Your task to perform on an android device: add a label to a message in the gmail app Image 0: 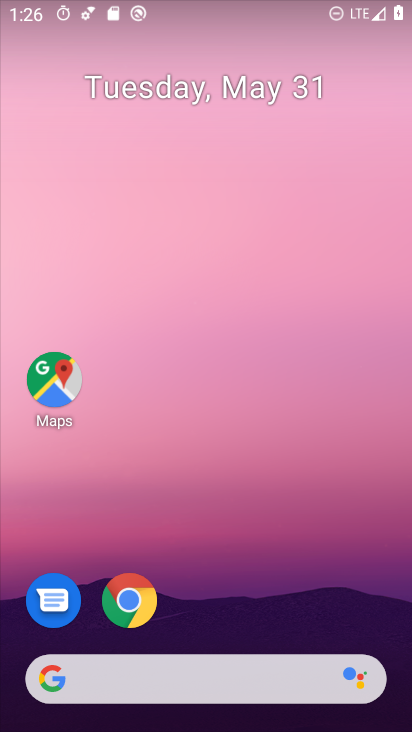
Step 0: drag from (237, 711) to (237, 628)
Your task to perform on an android device: add a label to a message in the gmail app Image 1: 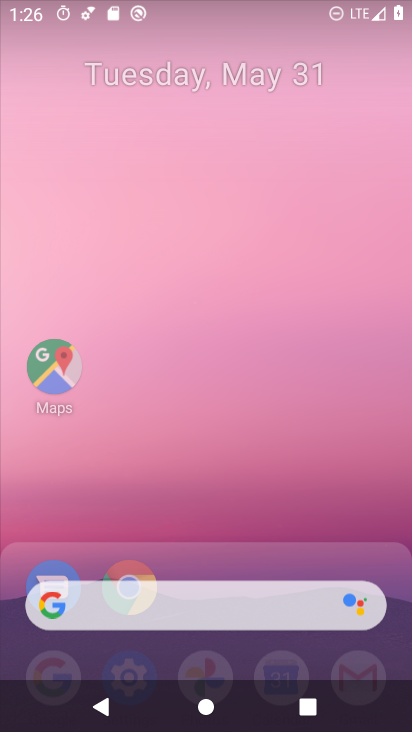
Step 1: click (225, 69)
Your task to perform on an android device: add a label to a message in the gmail app Image 2: 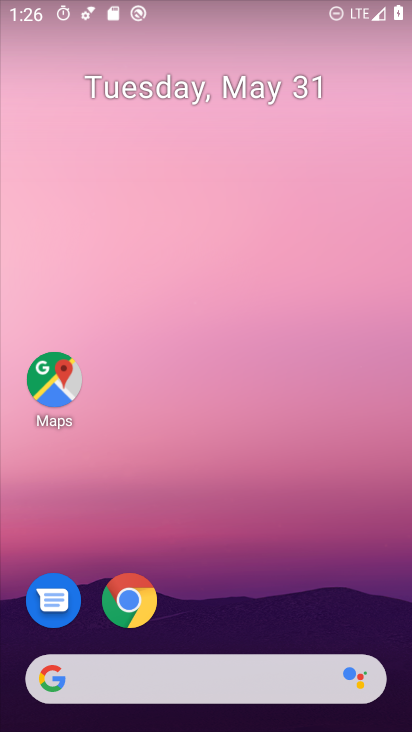
Step 2: drag from (240, 724) to (245, 2)
Your task to perform on an android device: add a label to a message in the gmail app Image 3: 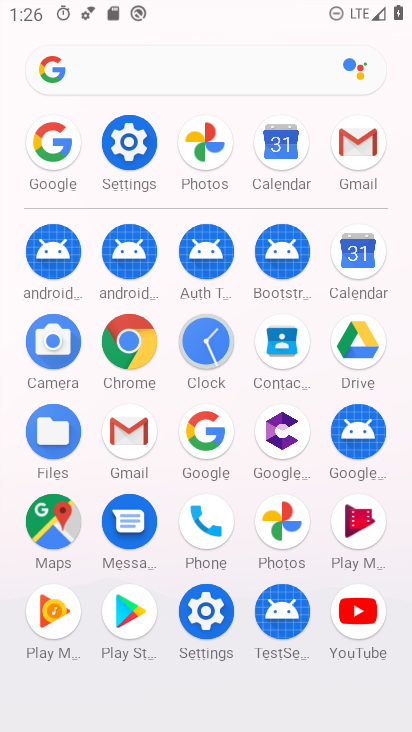
Step 3: click (133, 433)
Your task to perform on an android device: add a label to a message in the gmail app Image 4: 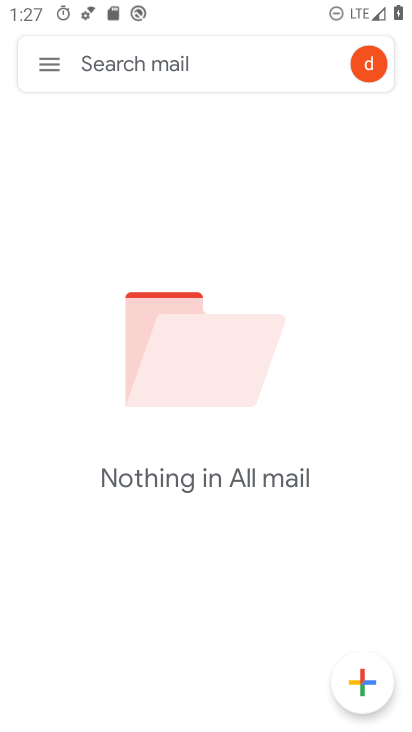
Step 4: click (52, 71)
Your task to perform on an android device: add a label to a message in the gmail app Image 5: 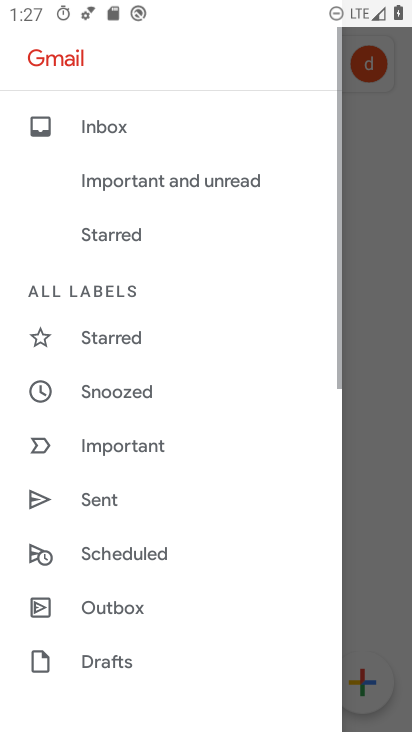
Step 5: click (107, 127)
Your task to perform on an android device: add a label to a message in the gmail app Image 6: 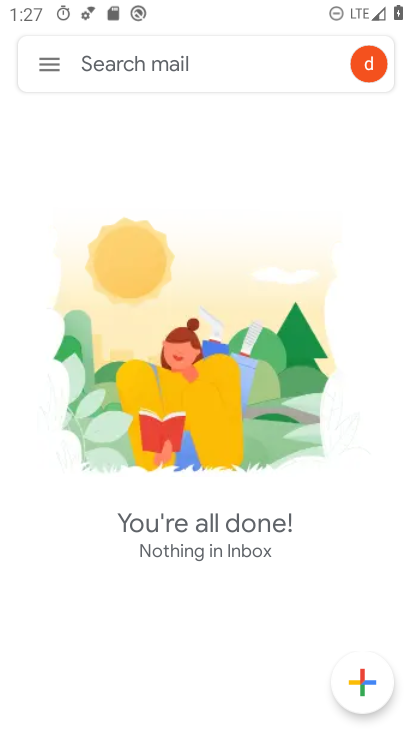
Step 6: task complete